Your task to perform on an android device: Search for sushi restaurants on Maps Image 0: 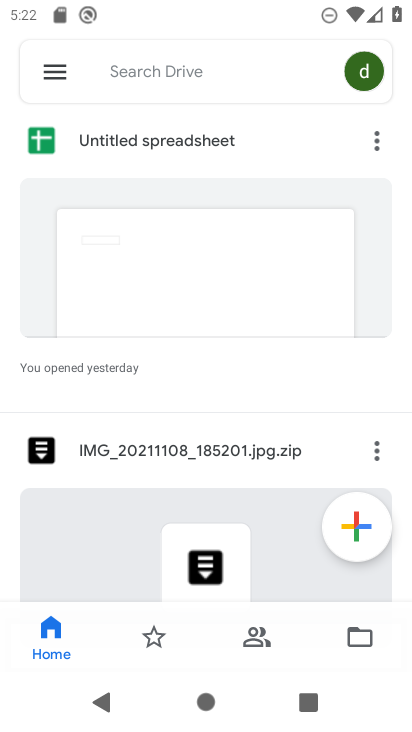
Step 0: press home button
Your task to perform on an android device: Search for sushi restaurants on Maps Image 1: 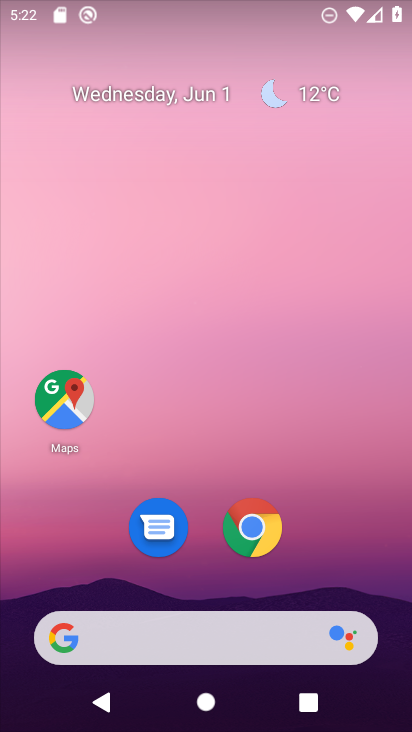
Step 1: click (63, 395)
Your task to perform on an android device: Search for sushi restaurants on Maps Image 2: 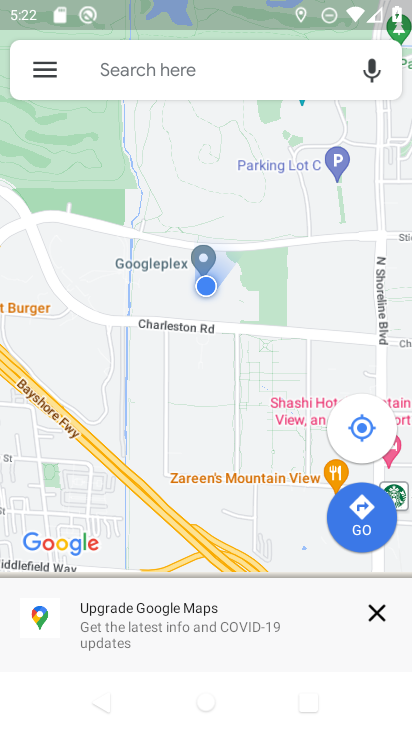
Step 2: click (176, 78)
Your task to perform on an android device: Search for sushi restaurants on Maps Image 3: 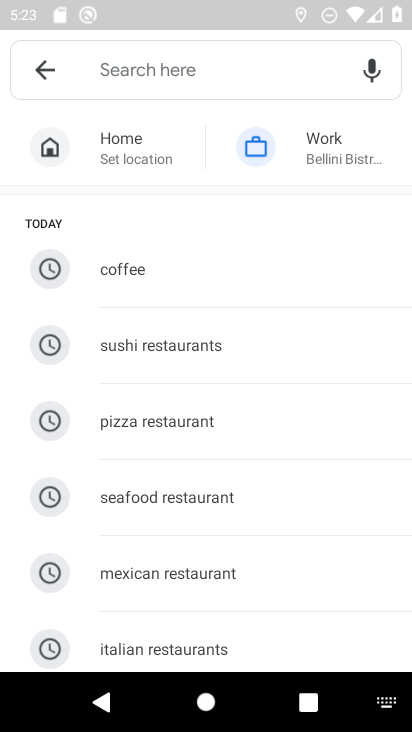
Step 3: click (201, 358)
Your task to perform on an android device: Search for sushi restaurants on Maps Image 4: 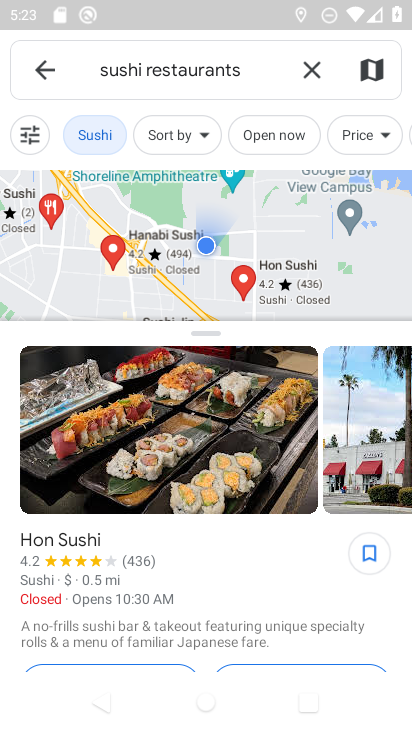
Step 4: task complete